Your task to perform on an android device: turn on showing notifications on the lock screen Image 0: 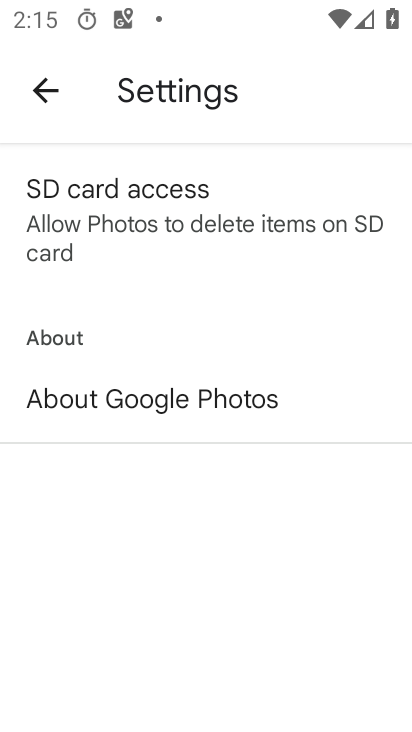
Step 0: press home button
Your task to perform on an android device: turn on showing notifications on the lock screen Image 1: 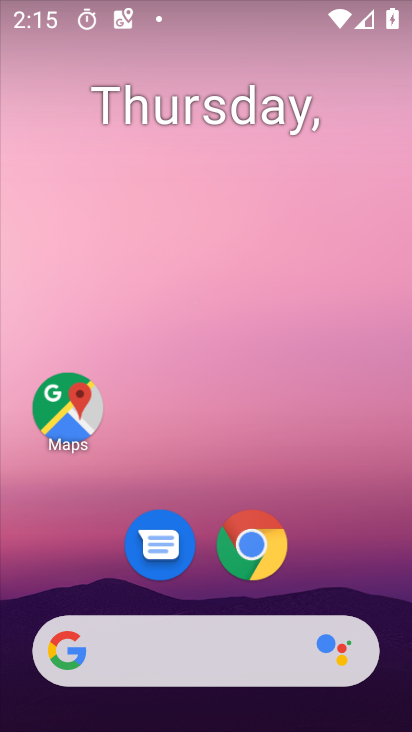
Step 1: drag from (210, 724) to (225, 64)
Your task to perform on an android device: turn on showing notifications on the lock screen Image 2: 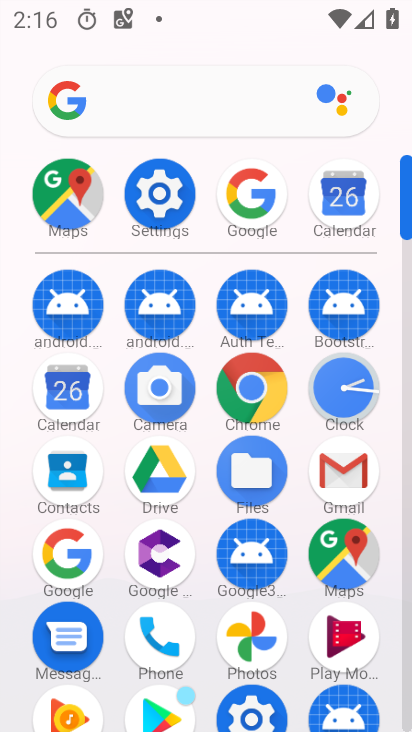
Step 2: click (160, 197)
Your task to perform on an android device: turn on showing notifications on the lock screen Image 3: 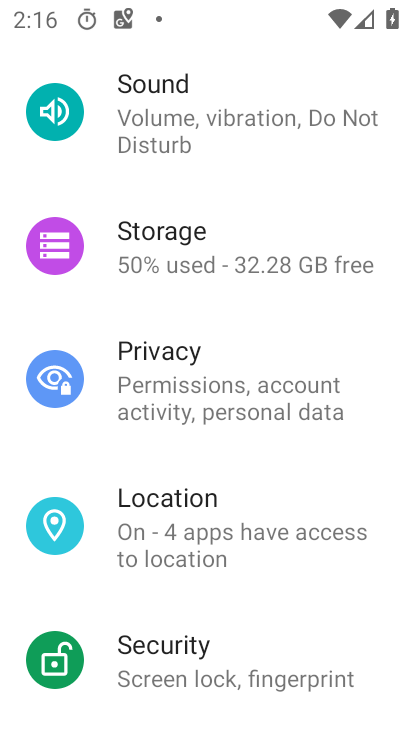
Step 3: drag from (247, 112) to (233, 476)
Your task to perform on an android device: turn on showing notifications on the lock screen Image 4: 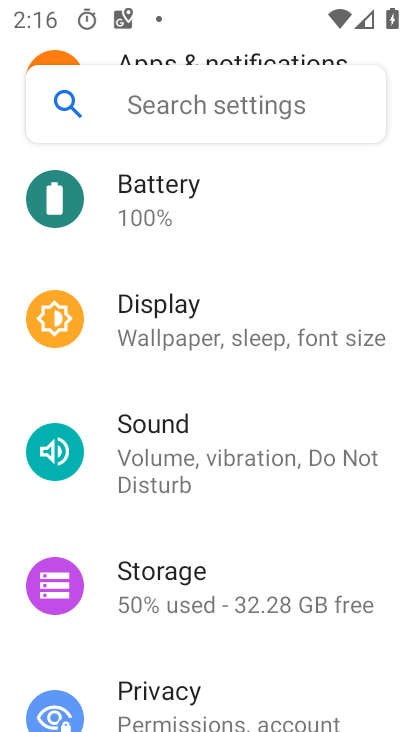
Step 4: drag from (240, 239) to (247, 615)
Your task to perform on an android device: turn on showing notifications on the lock screen Image 5: 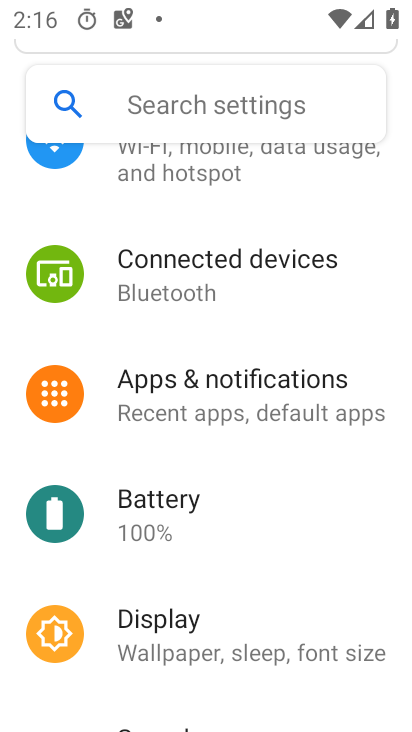
Step 5: click (192, 386)
Your task to perform on an android device: turn on showing notifications on the lock screen Image 6: 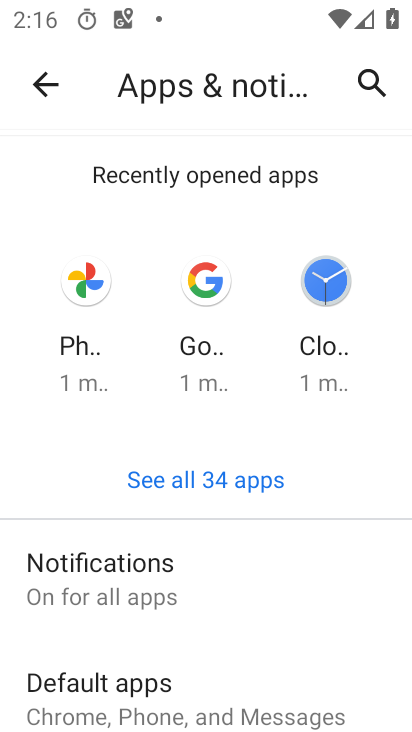
Step 6: drag from (242, 663) to (231, 419)
Your task to perform on an android device: turn on showing notifications on the lock screen Image 7: 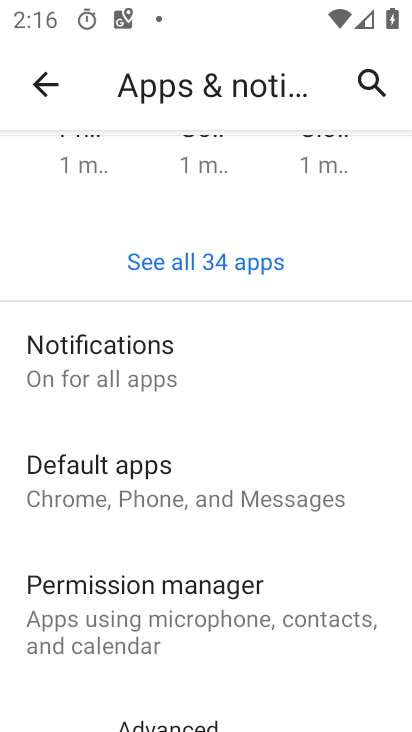
Step 7: click (119, 360)
Your task to perform on an android device: turn on showing notifications on the lock screen Image 8: 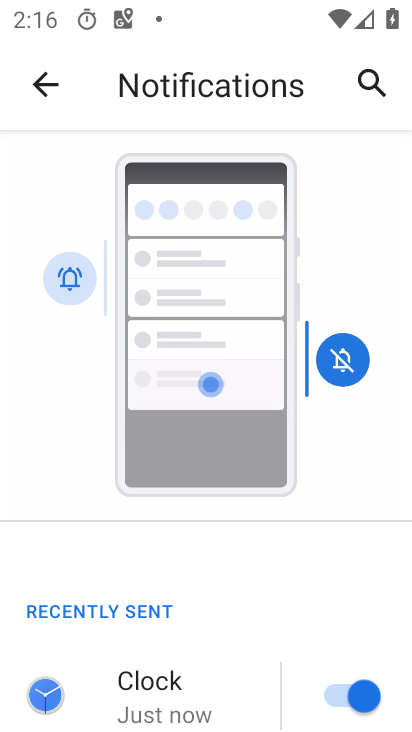
Step 8: task complete